Your task to perform on an android device: Search for Mexican restaurants on Maps Image 0: 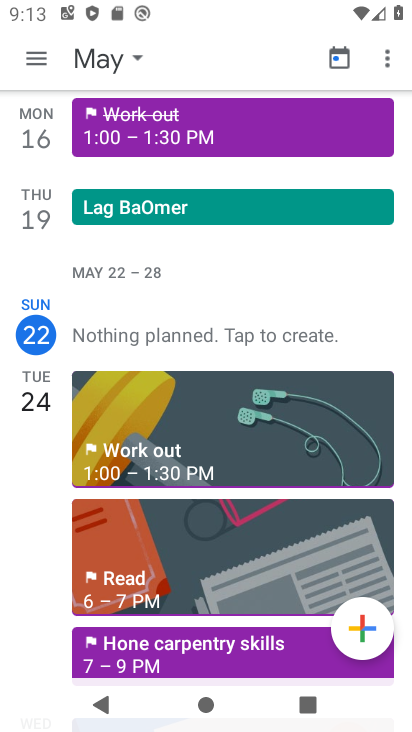
Step 0: press home button
Your task to perform on an android device: Search for Mexican restaurants on Maps Image 1: 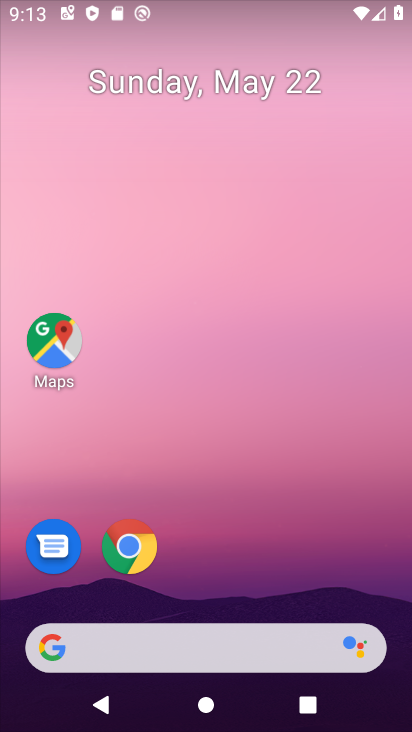
Step 1: click (65, 323)
Your task to perform on an android device: Search for Mexican restaurants on Maps Image 2: 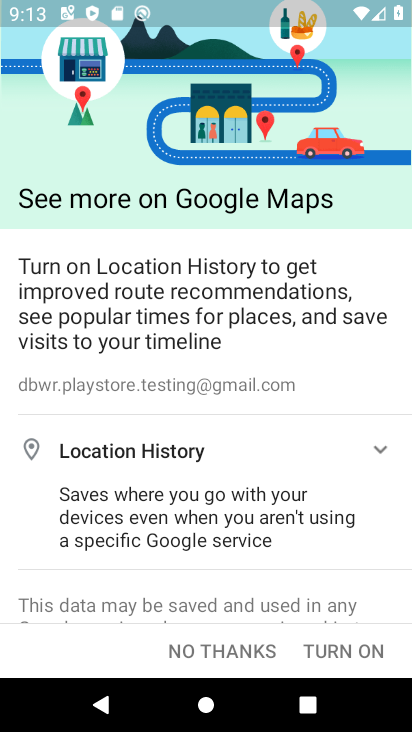
Step 2: click (230, 642)
Your task to perform on an android device: Search for Mexican restaurants on Maps Image 3: 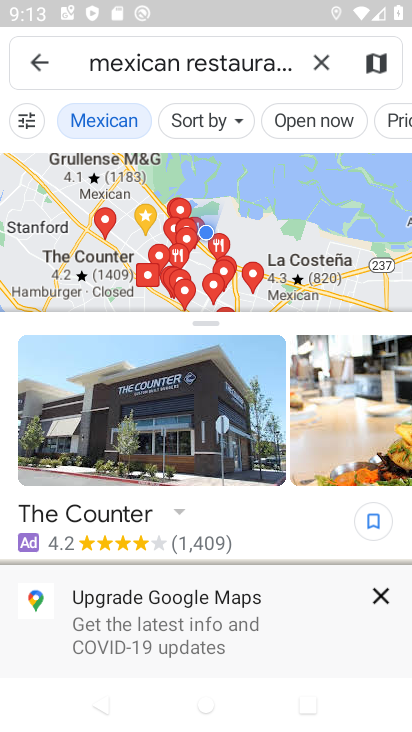
Step 3: task complete